Your task to perform on an android device: Open Maps and search for coffee Image 0: 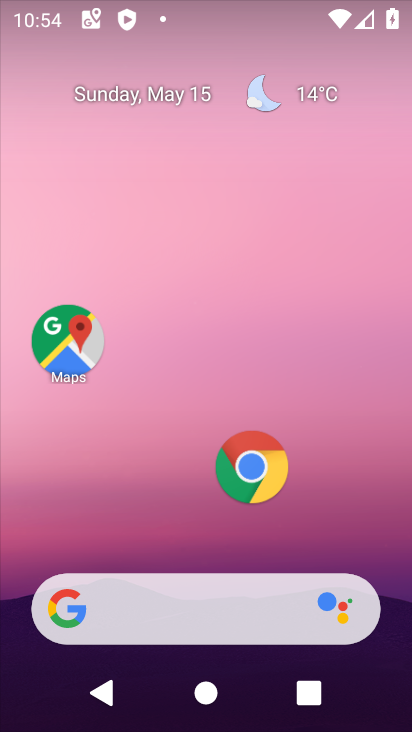
Step 0: drag from (256, 510) to (250, 143)
Your task to perform on an android device: Open Maps and search for coffee Image 1: 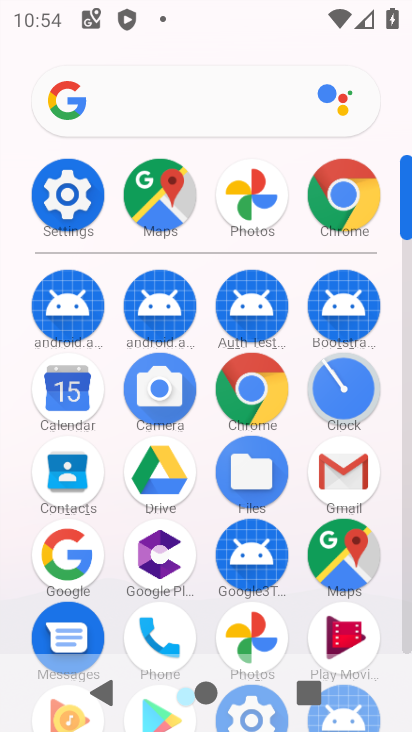
Step 1: click (357, 569)
Your task to perform on an android device: Open Maps and search for coffee Image 2: 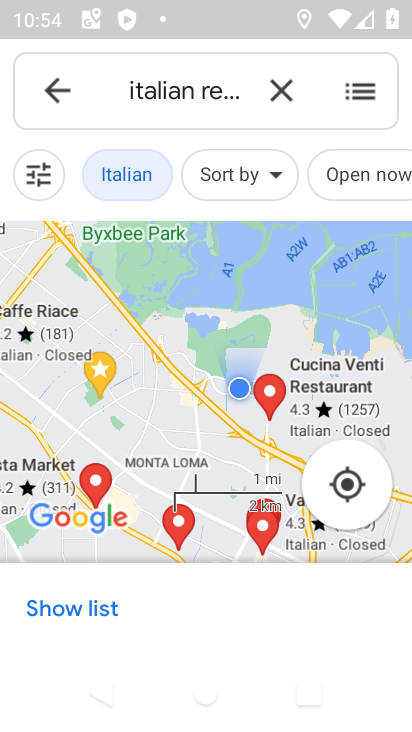
Step 2: click (283, 77)
Your task to perform on an android device: Open Maps and search for coffee Image 3: 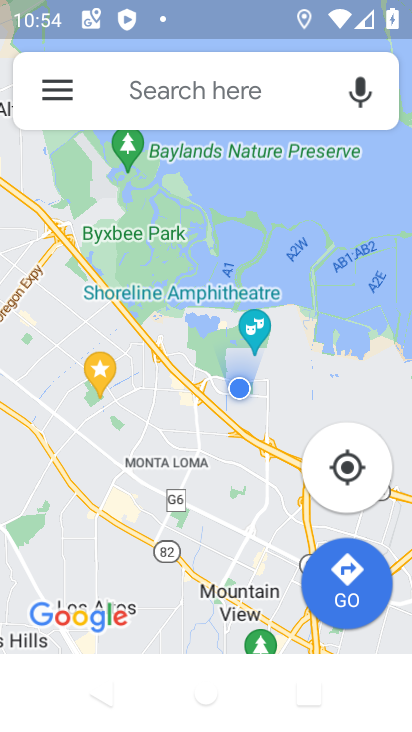
Step 3: click (244, 87)
Your task to perform on an android device: Open Maps and search for coffee Image 4: 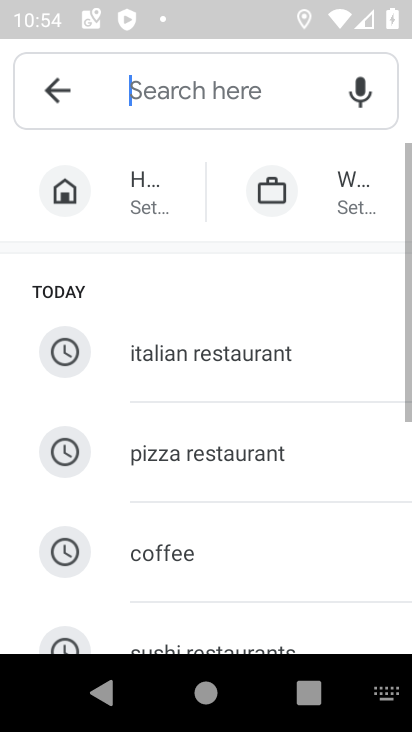
Step 4: click (260, 572)
Your task to perform on an android device: Open Maps and search for coffee Image 5: 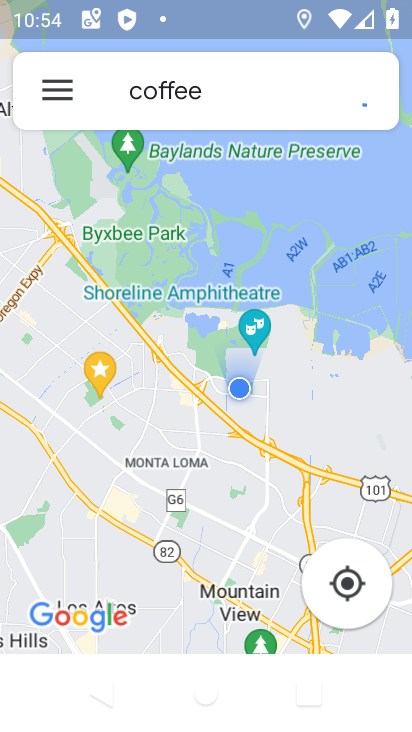
Step 5: task complete